Your task to perform on an android device: Search for pizza restaurants on Maps Image 0: 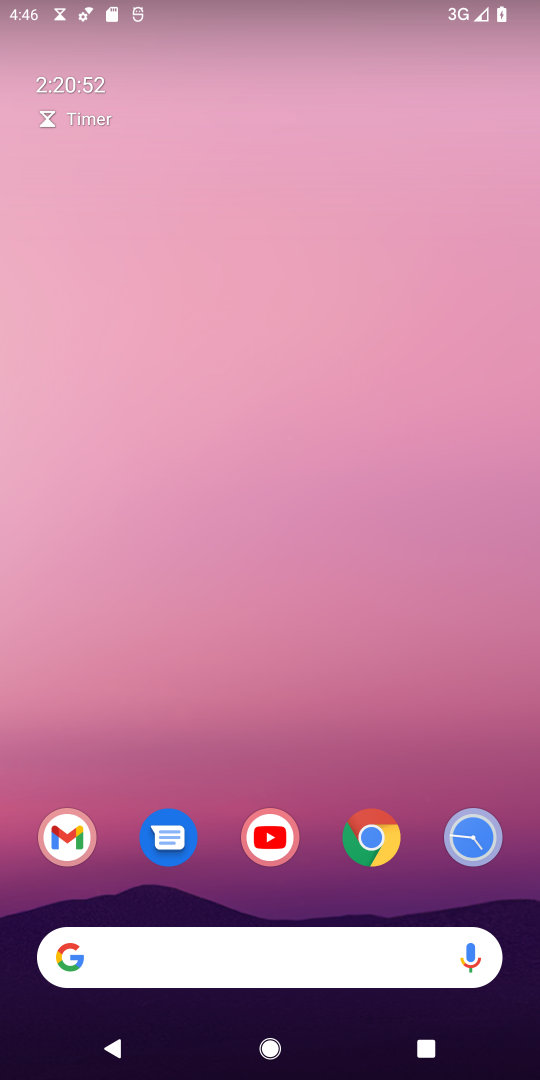
Step 0: drag from (148, 773) to (329, 14)
Your task to perform on an android device: Search for pizza restaurants on Maps Image 1: 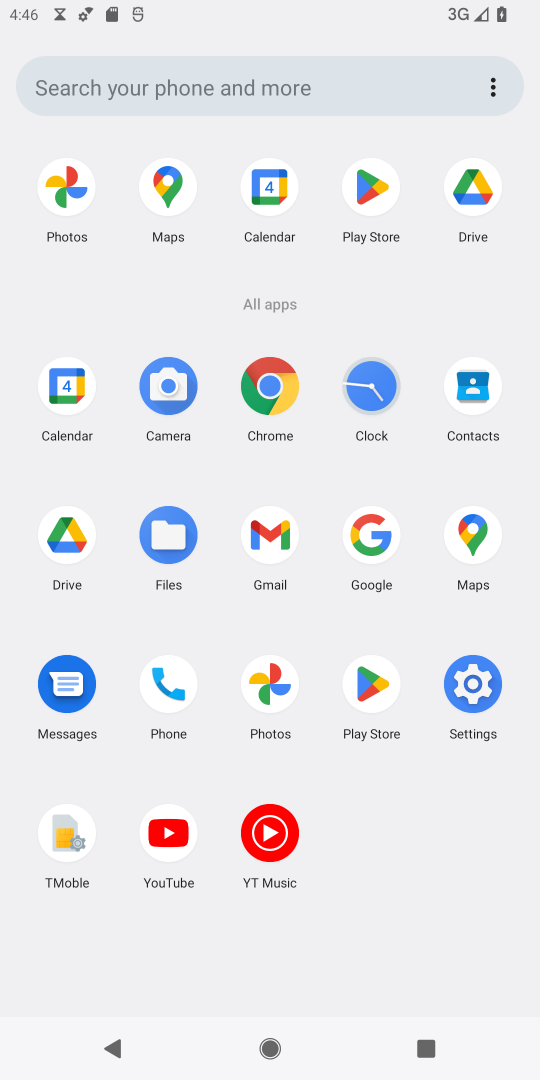
Step 1: click (485, 530)
Your task to perform on an android device: Search for pizza restaurants on Maps Image 2: 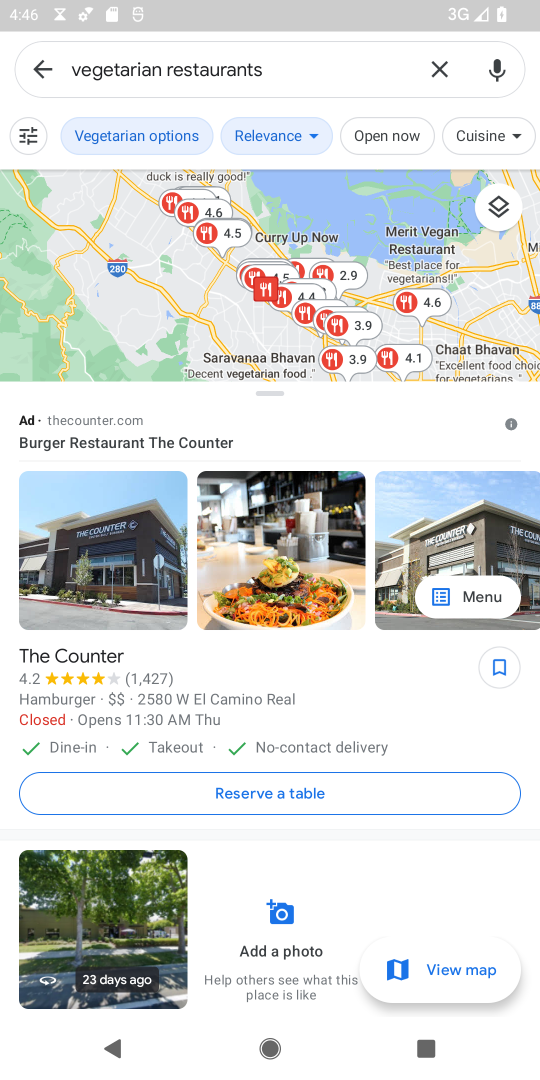
Step 2: click (436, 68)
Your task to perform on an android device: Search for pizza restaurants on Maps Image 3: 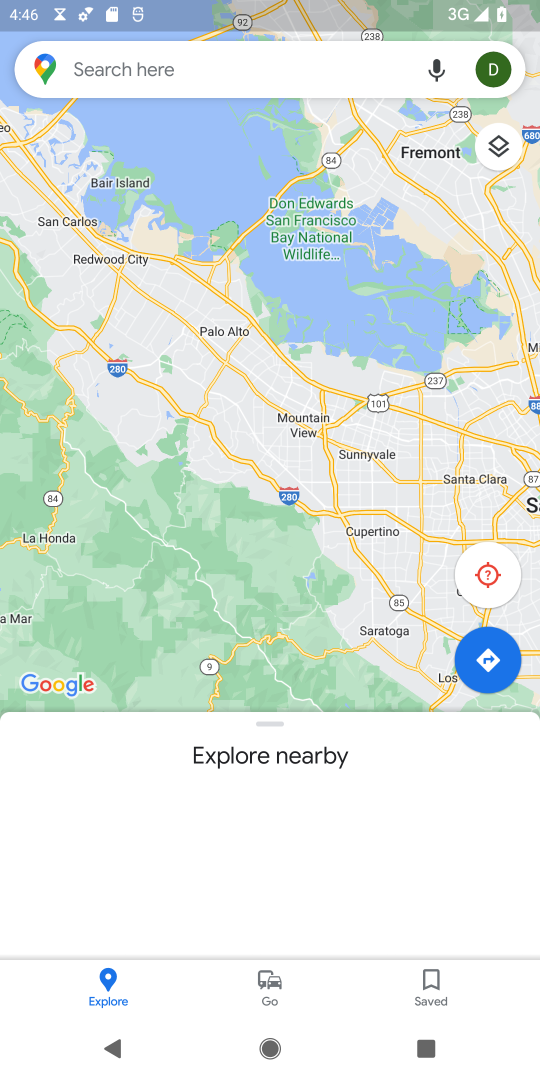
Step 3: click (347, 75)
Your task to perform on an android device: Search for pizza restaurants on Maps Image 4: 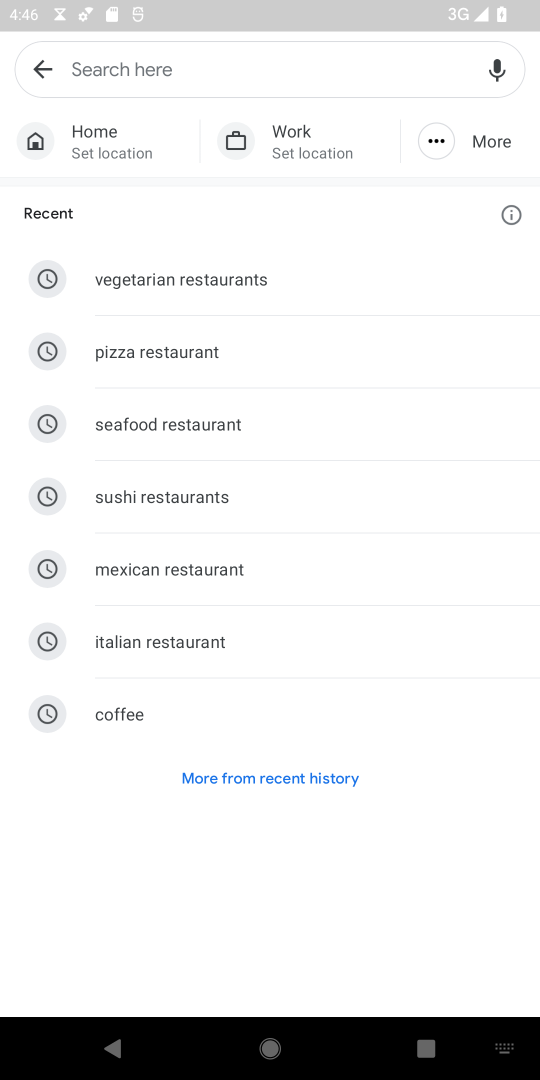
Step 4: type "pizza restaurants"
Your task to perform on an android device: Search for pizza restaurants on Maps Image 5: 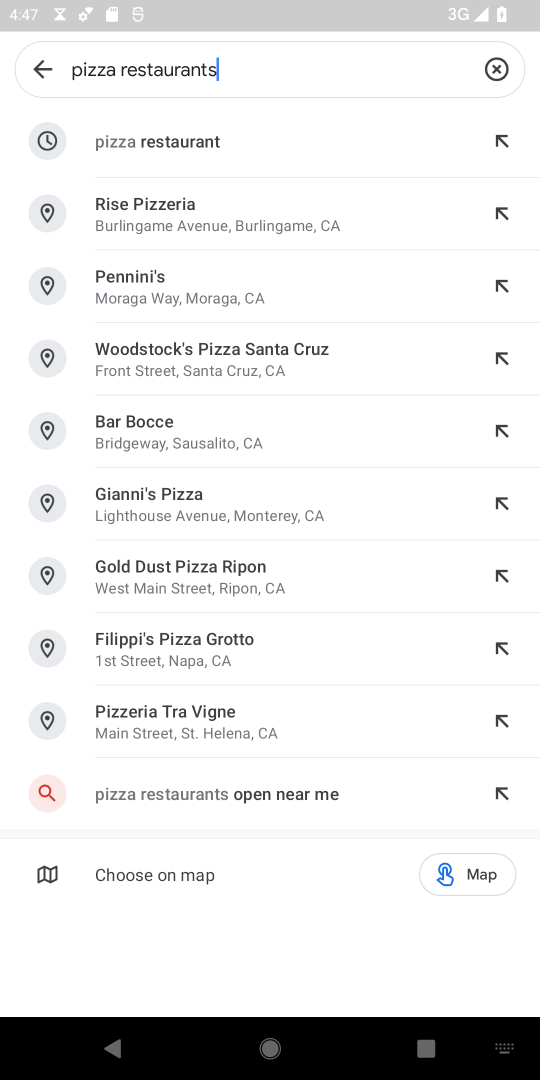
Step 5: click (263, 152)
Your task to perform on an android device: Search for pizza restaurants on Maps Image 6: 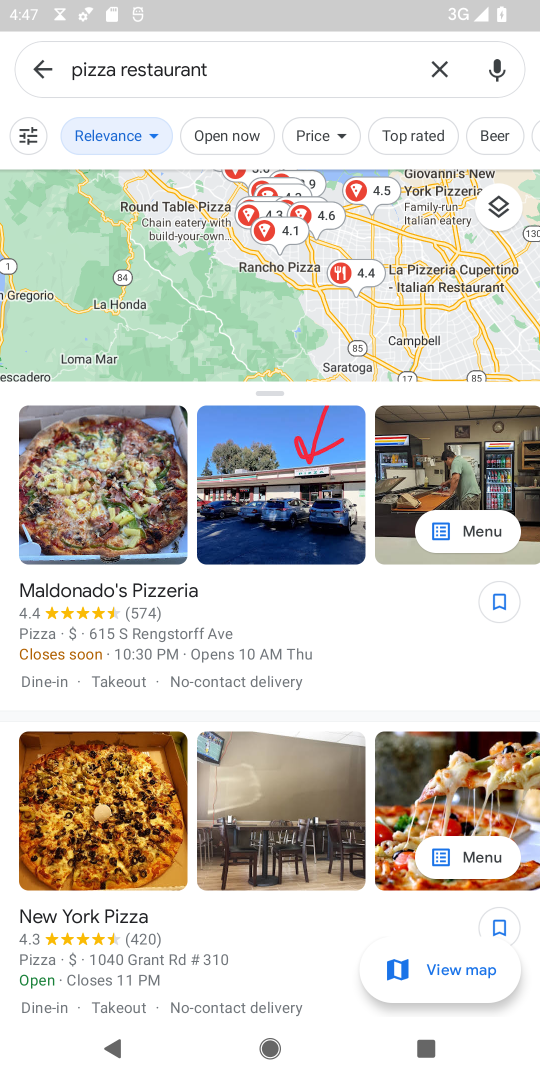
Step 6: task complete